Your task to perform on an android device: Go to Yahoo.com Image 0: 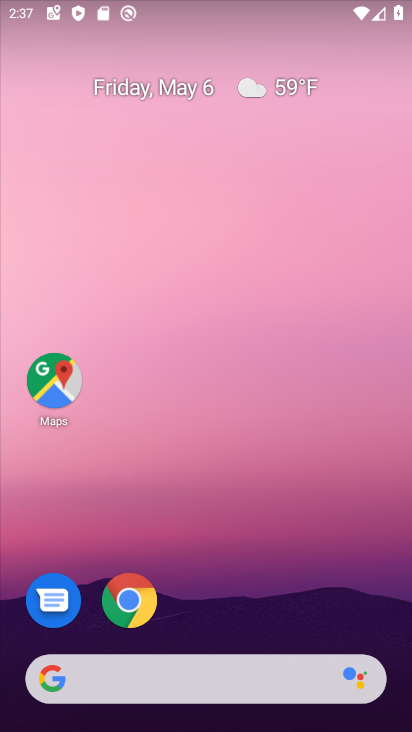
Step 0: click (129, 599)
Your task to perform on an android device: Go to Yahoo.com Image 1: 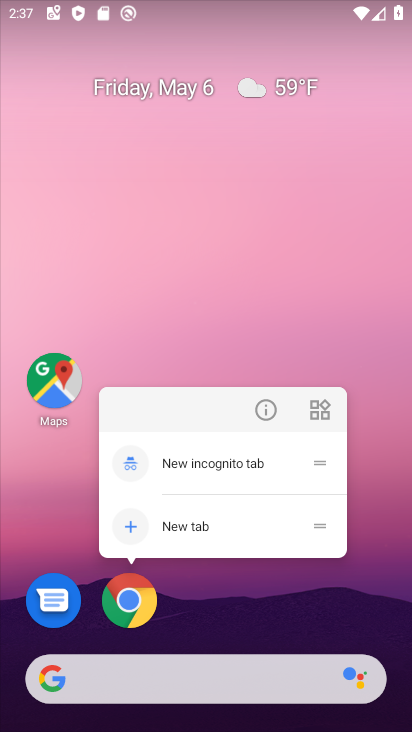
Step 1: click (126, 610)
Your task to perform on an android device: Go to Yahoo.com Image 2: 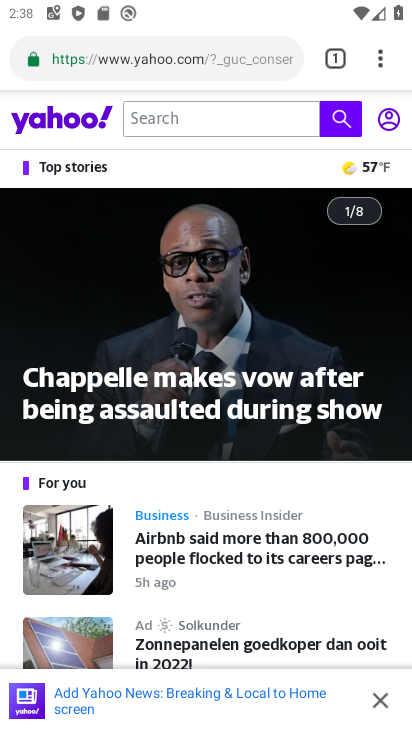
Step 2: task complete